Your task to perform on an android device: open sync settings in chrome Image 0: 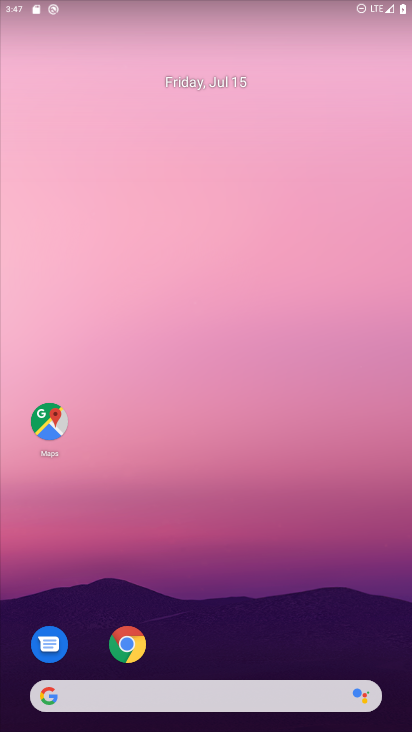
Step 0: click (122, 645)
Your task to perform on an android device: open sync settings in chrome Image 1: 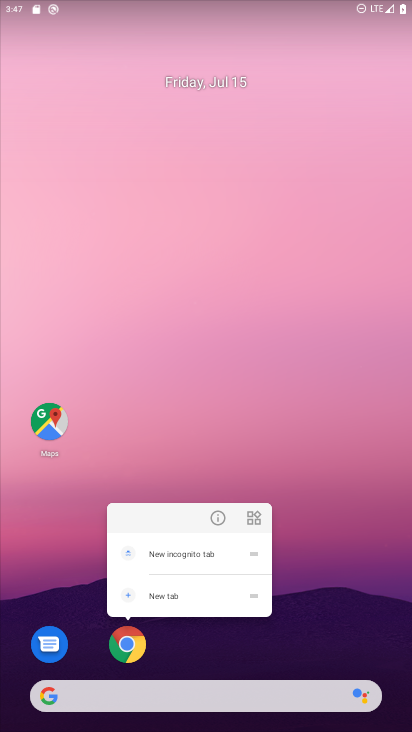
Step 1: click (122, 644)
Your task to perform on an android device: open sync settings in chrome Image 2: 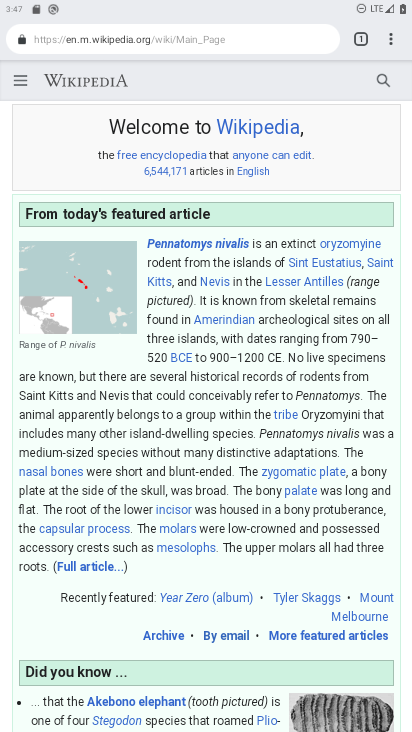
Step 2: click (392, 31)
Your task to perform on an android device: open sync settings in chrome Image 3: 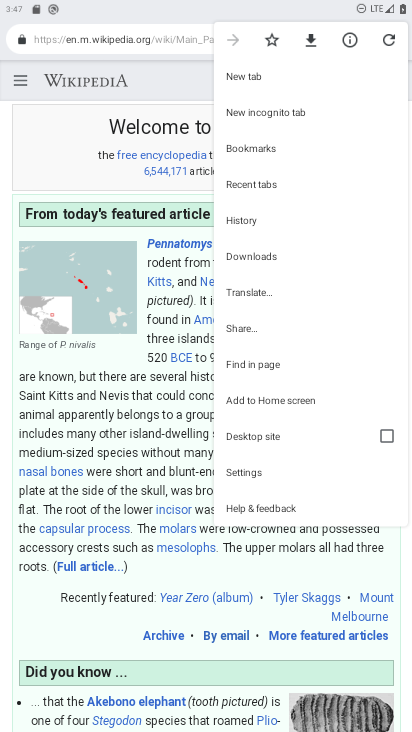
Step 3: click (237, 469)
Your task to perform on an android device: open sync settings in chrome Image 4: 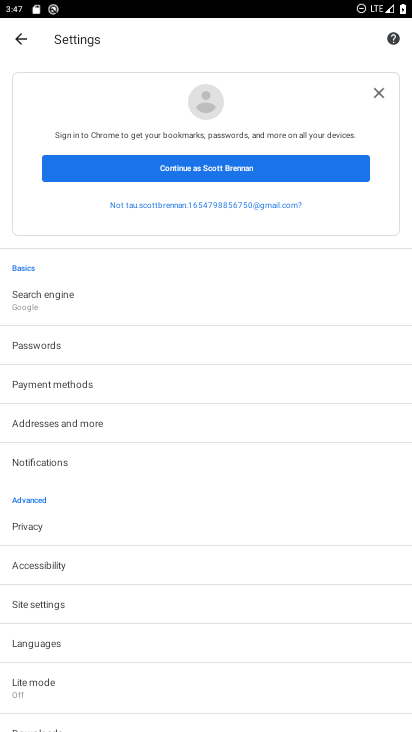
Step 4: task complete